Your task to perform on an android device: star an email in the gmail app Image 0: 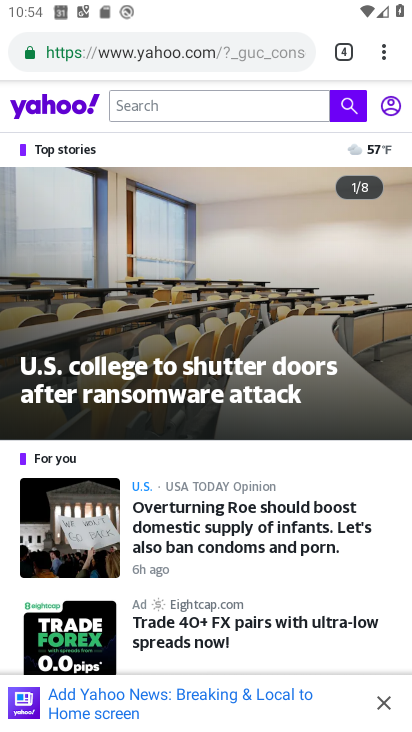
Step 0: press home button
Your task to perform on an android device: star an email in the gmail app Image 1: 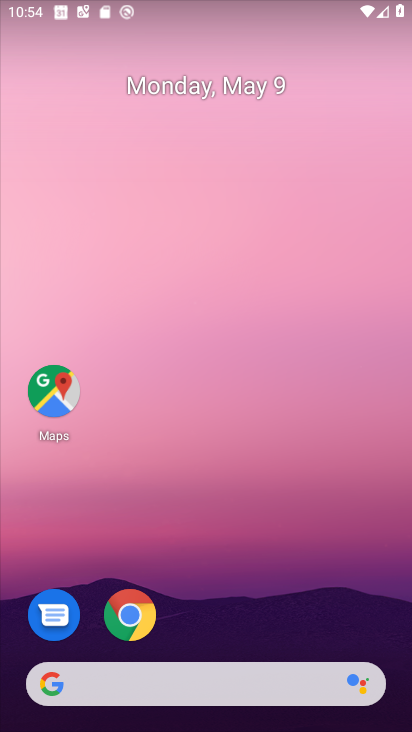
Step 1: drag from (297, 699) to (198, 127)
Your task to perform on an android device: star an email in the gmail app Image 2: 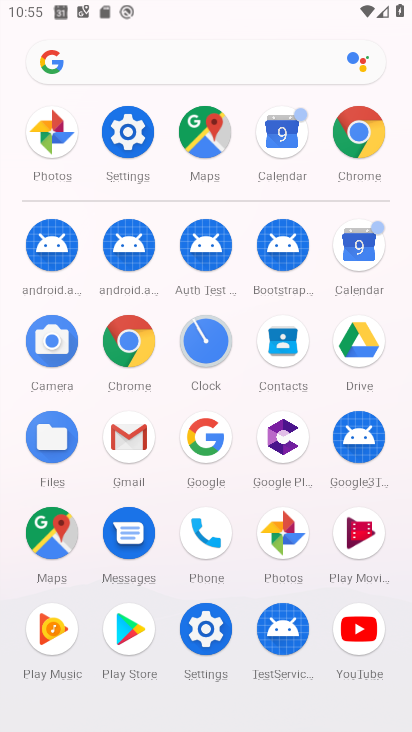
Step 2: click (129, 424)
Your task to perform on an android device: star an email in the gmail app Image 3: 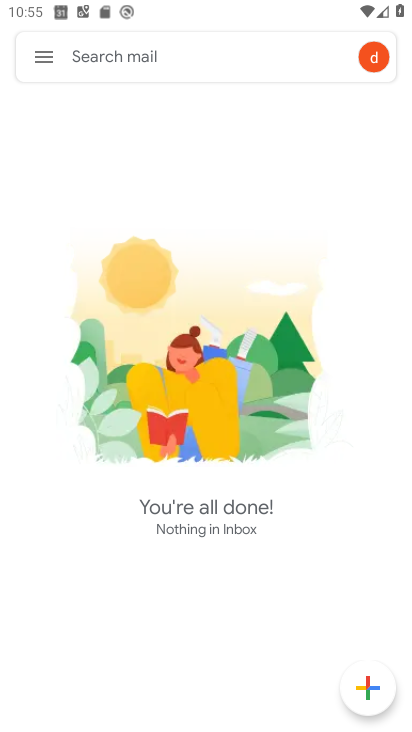
Step 3: click (50, 36)
Your task to perform on an android device: star an email in the gmail app Image 4: 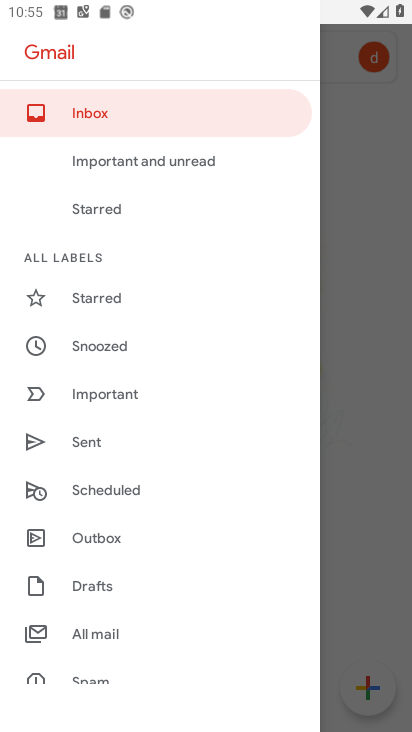
Step 4: click (100, 296)
Your task to perform on an android device: star an email in the gmail app Image 5: 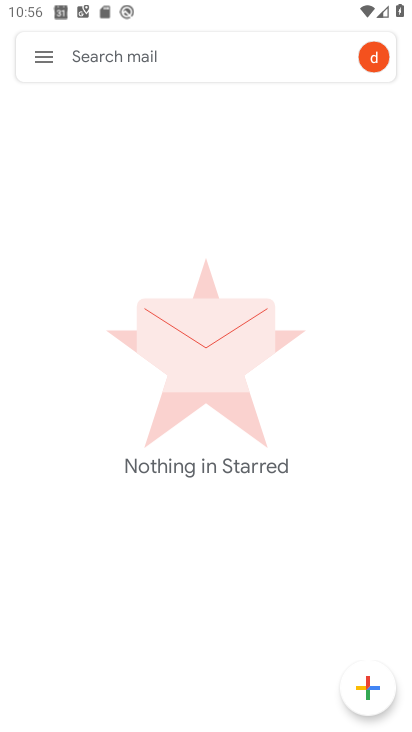
Step 5: task complete